Your task to perform on an android device: turn on improve location accuracy Image 0: 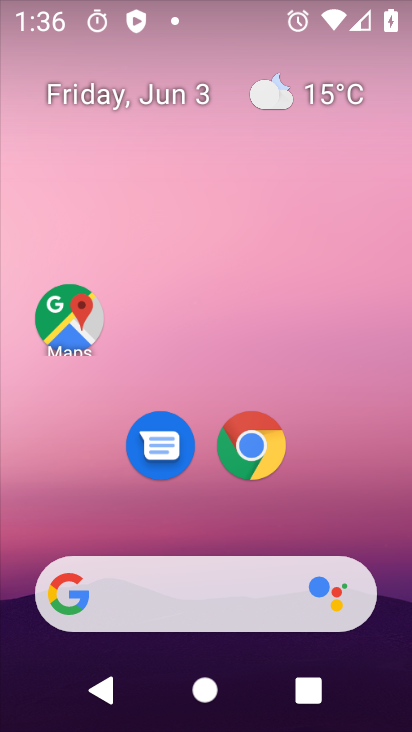
Step 0: drag from (266, 411) to (239, 237)
Your task to perform on an android device: turn on improve location accuracy Image 1: 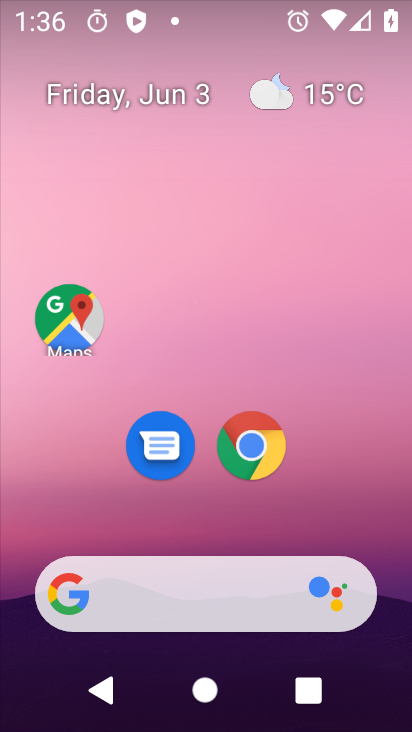
Step 1: drag from (188, 507) to (301, 9)
Your task to perform on an android device: turn on improve location accuracy Image 2: 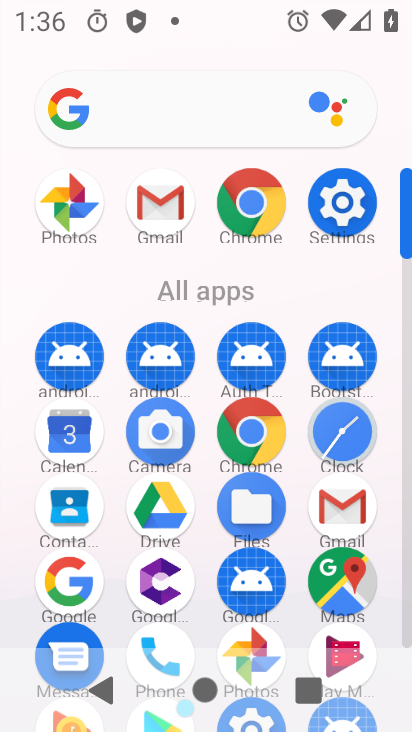
Step 2: click (336, 207)
Your task to perform on an android device: turn on improve location accuracy Image 3: 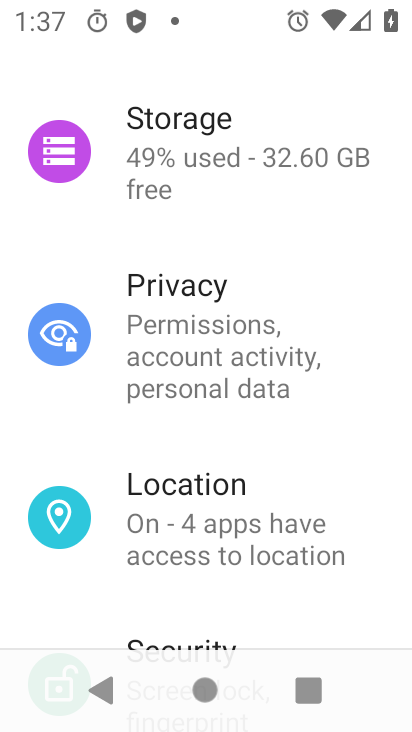
Step 3: click (228, 472)
Your task to perform on an android device: turn on improve location accuracy Image 4: 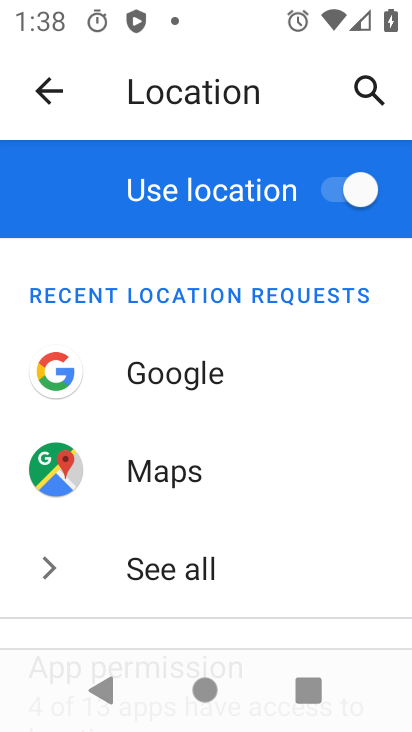
Step 4: drag from (192, 380) to (198, 142)
Your task to perform on an android device: turn on improve location accuracy Image 5: 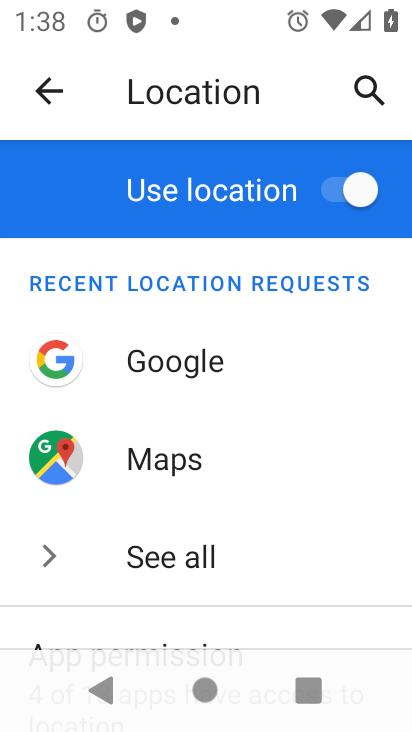
Step 5: drag from (116, 402) to (147, 119)
Your task to perform on an android device: turn on improve location accuracy Image 6: 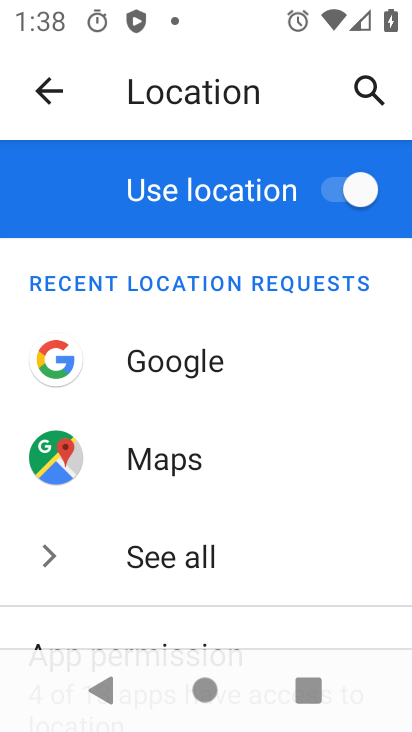
Step 6: drag from (200, 570) to (172, 129)
Your task to perform on an android device: turn on improve location accuracy Image 7: 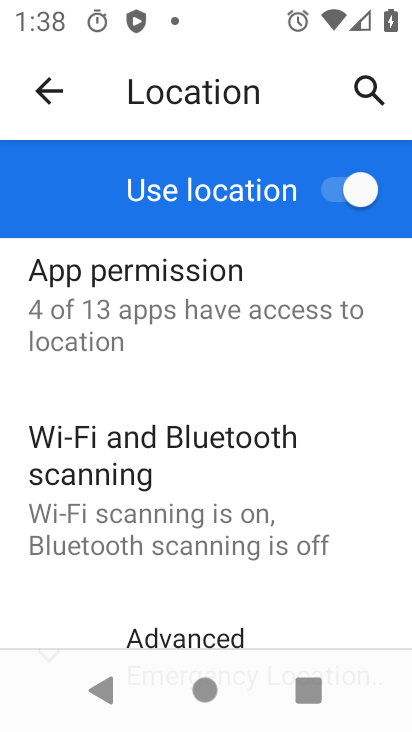
Step 7: drag from (287, 560) to (295, 33)
Your task to perform on an android device: turn on improve location accuracy Image 8: 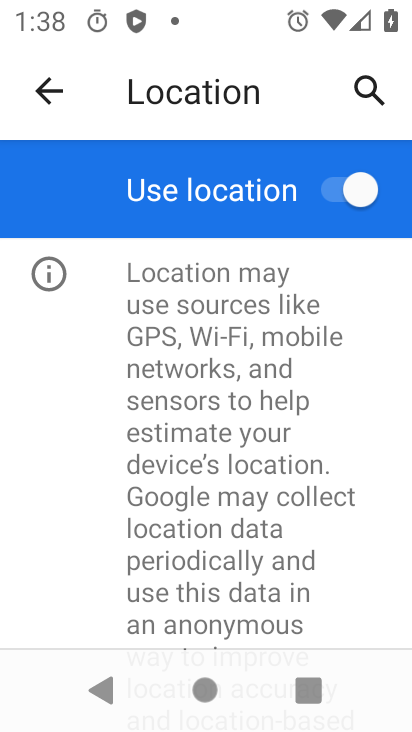
Step 8: drag from (267, 251) to (229, 561)
Your task to perform on an android device: turn on improve location accuracy Image 9: 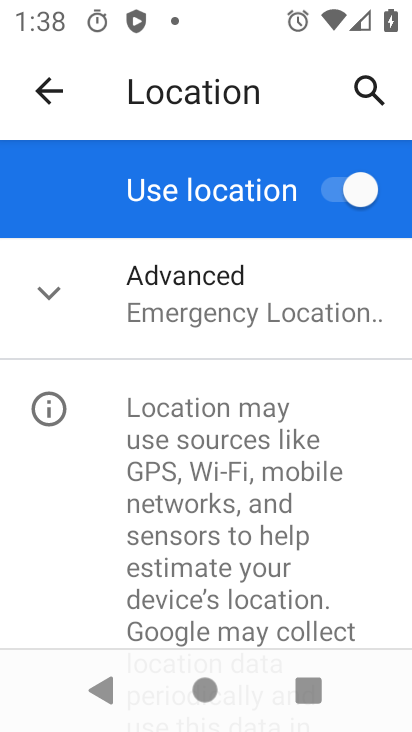
Step 9: click (205, 320)
Your task to perform on an android device: turn on improve location accuracy Image 10: 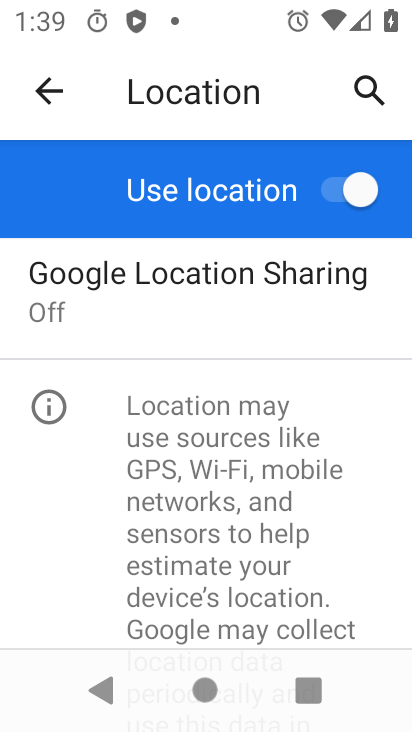
Step 10: task complete